Your task to perform on an android device: Set the phone to "Do not disturb". Image 0: 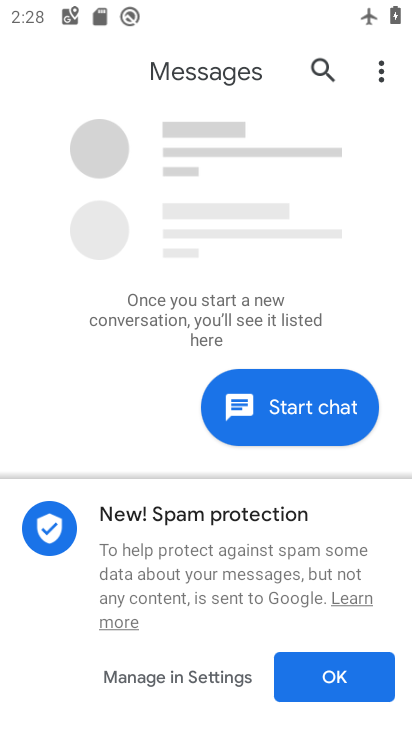
Step 0: press home button
Your task to perform on an android device: Set the phone to "Do not disturb". Image 1: 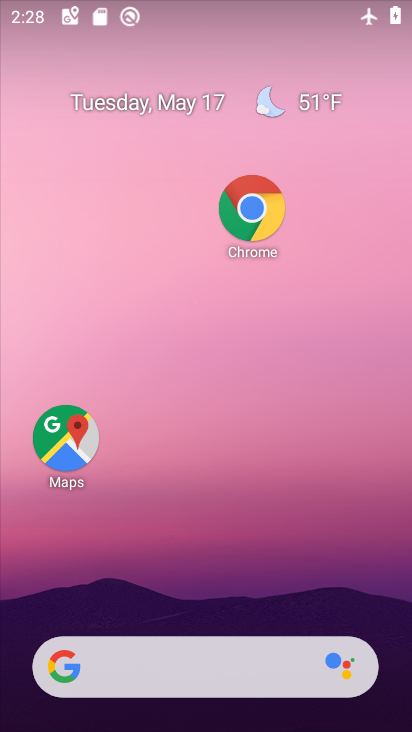
Step 1: drag from (215, 4) to (201, 552)
Your task to perform on an android device: Set the phone to "Do not disturb". Image 2: 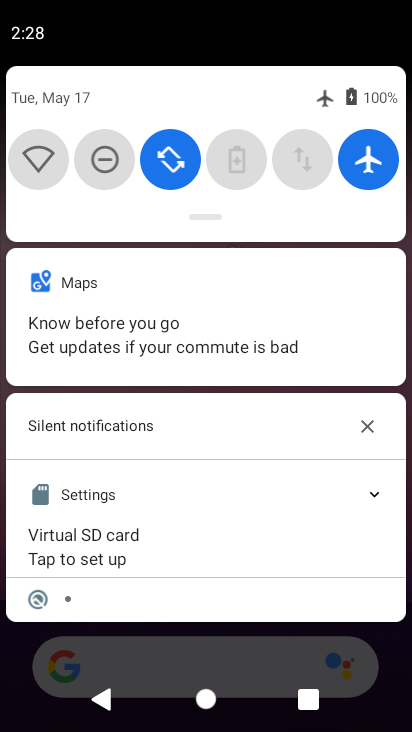
Step 2: click (98, 166)
Your task to perform on an android device: Set the phone to "Do not disturb". Image 3: 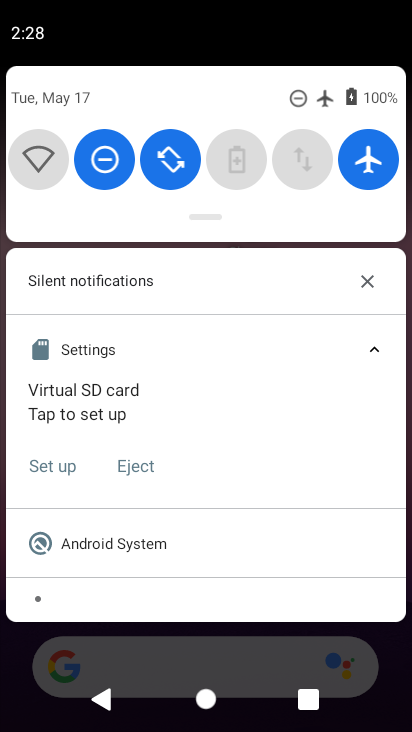
Step 3: task complete